Your task to perform on an android device: Open Google Image 0: 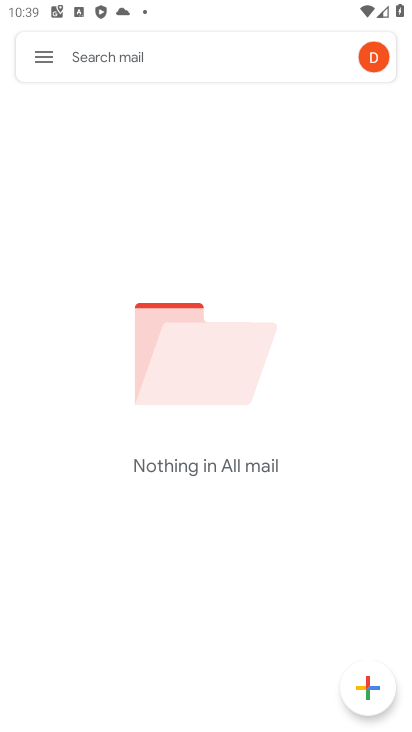
Step 0: press home button
Your task to perform on an android device: Open Google Image 1: 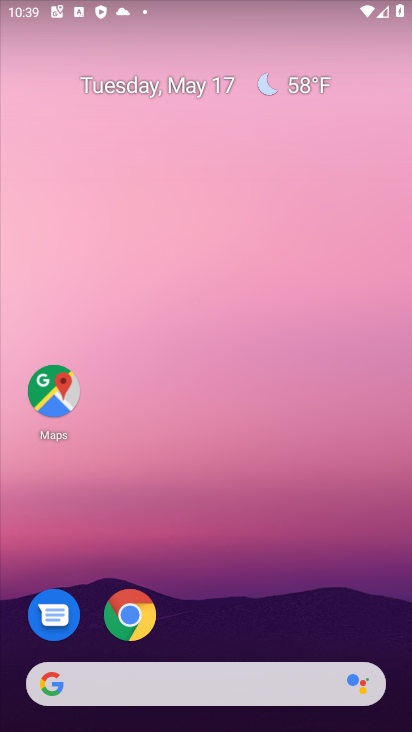
Step 1: click (126, 623)
Your task to perform on an android device: Open Google Image 2: 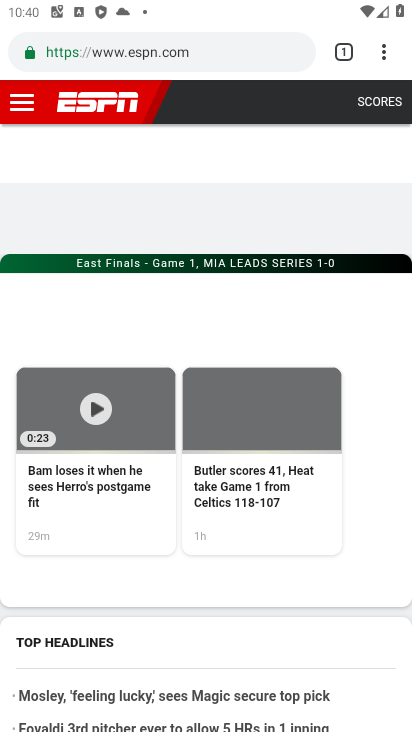
Step 2: task complete